Your task to perform on an android device: create a new album in the google photos Image 0: 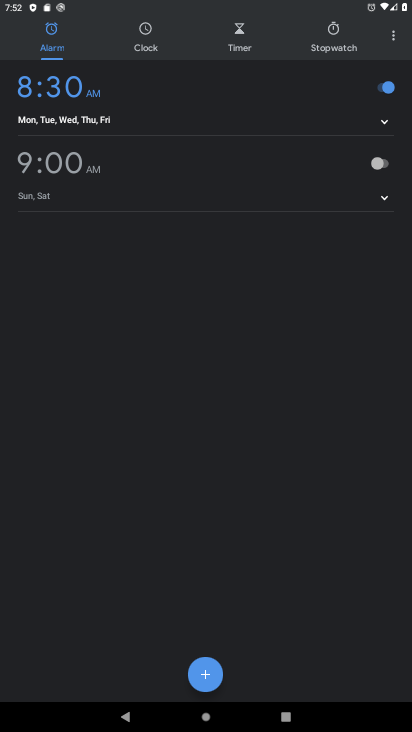
Step 0: press home button
Your task to perform on an android device: create a new album in the google photos Image 1: 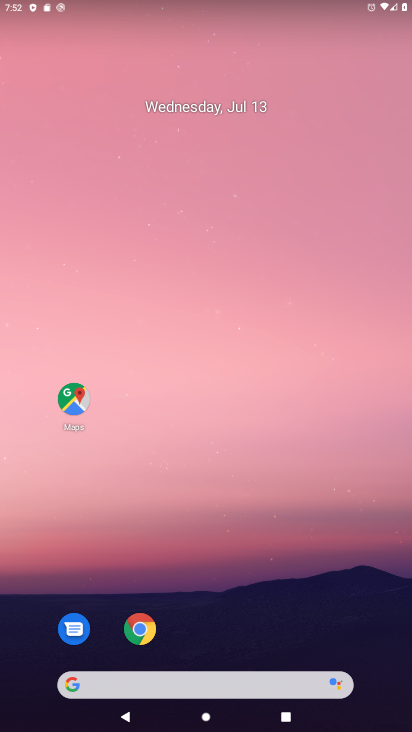
Step 1: drag from (65, 693) to (250, 23)
Your task to perform on an android device: create a new album in the google photos Image 2: 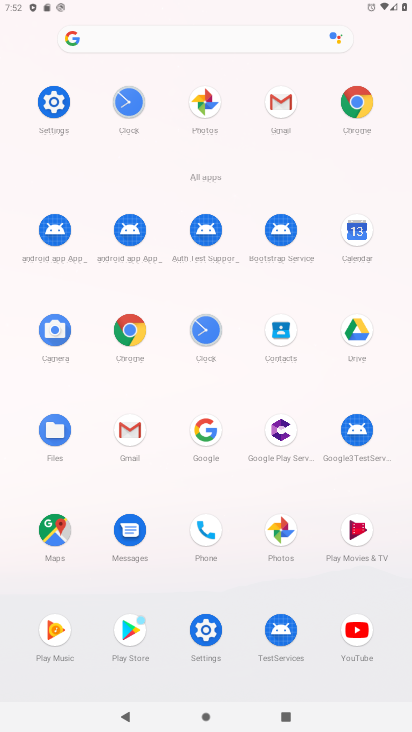
Step 2: click (278, 540)
Your task to perform on an android device: create a new album in the google photos Image 3: 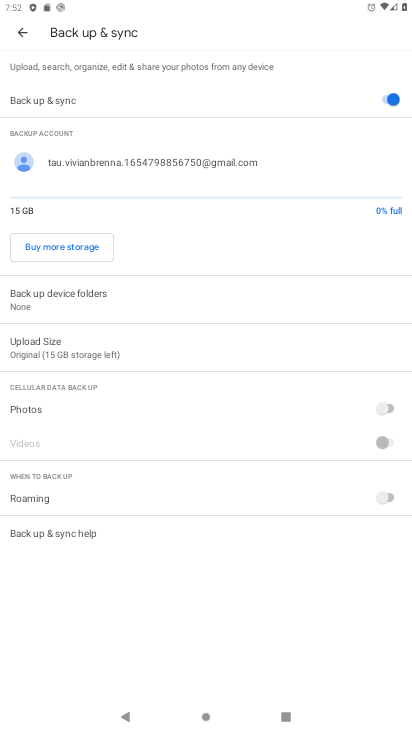
Step 3: click (17, 28)
Your task to perform on an android device: create a new album in the google photos Image 4: 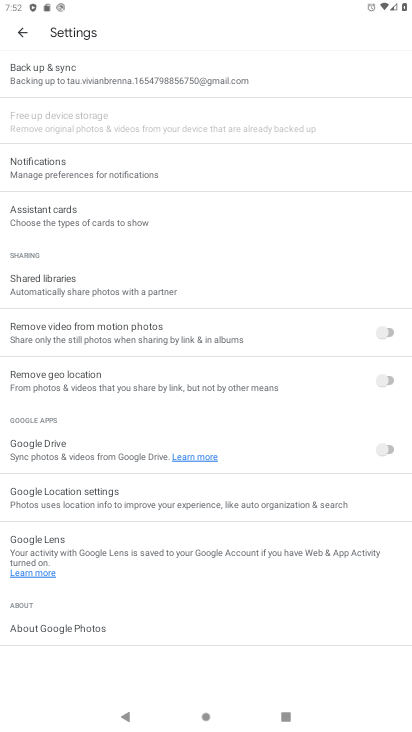
Step 4: click (16, 25)
Your task to perform on an android device: create a new album in the google photos Image 5: 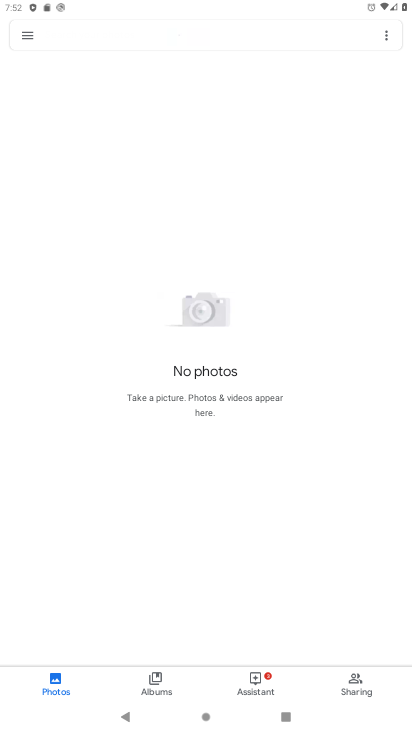
Step 5: click (173, 680)
Your task to perform on an android device: create a new album in the google photos Image 6: 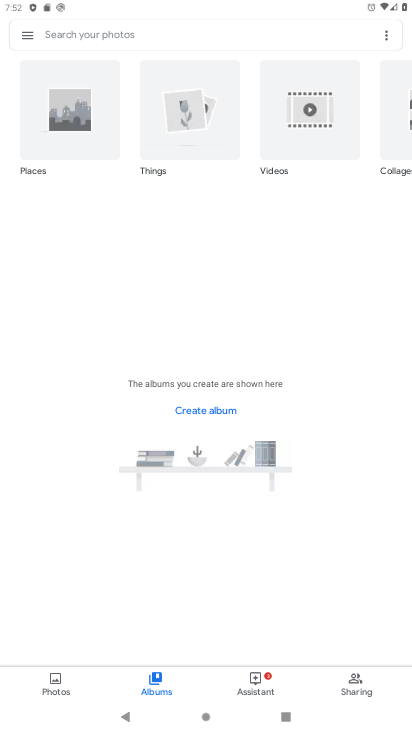
Step 6: click (380, 38)
Your task to perform on an android device: create a new album in the google photos Image 7: 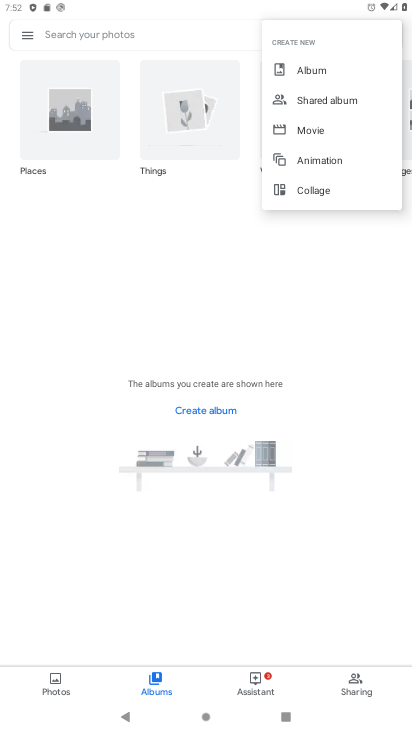
Step 7: click (326, 76)
Your task to perform on an android device: create a new album in the google photos Image 8: 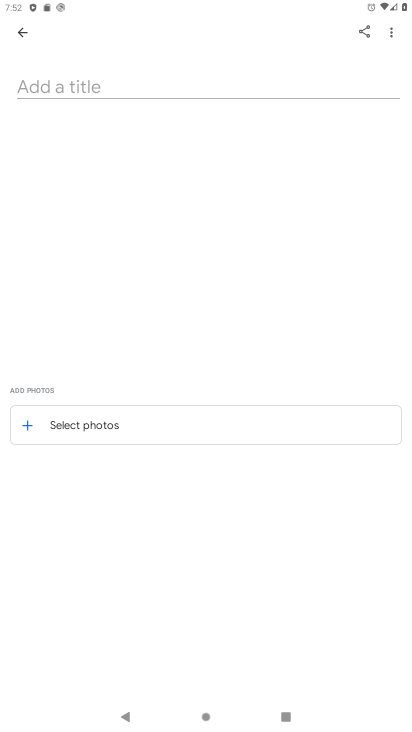
Step 8: click (66, 78)
Your task to perform on an android device: create a new album in the google photos Image 9: 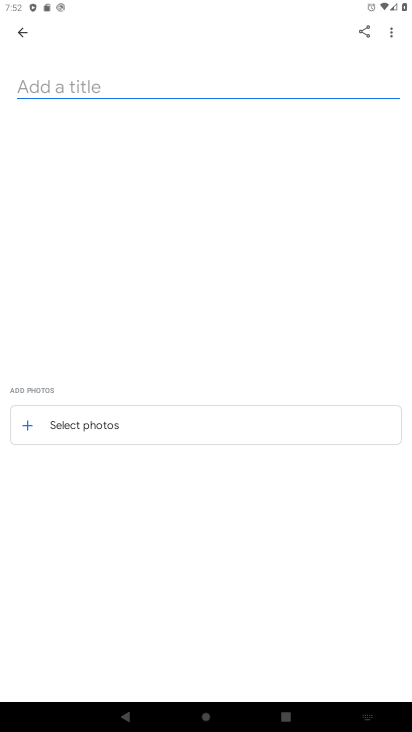
Step 9: type "xyz"
Your task to perform on an android device: create a new album in the google photos Image 10: 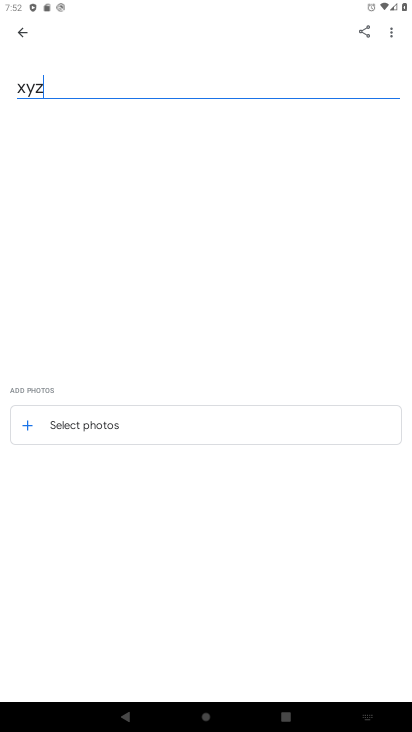
Step 10: type ""
Your task to perform on an android device: create a new album in the google photos Image 11: 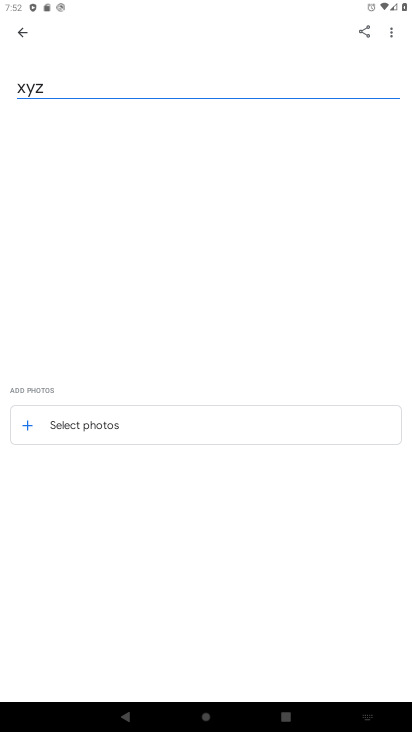
Step 11: click (382, 33)
Your task to perform on an android device: create a new album in the google photos Image 12: 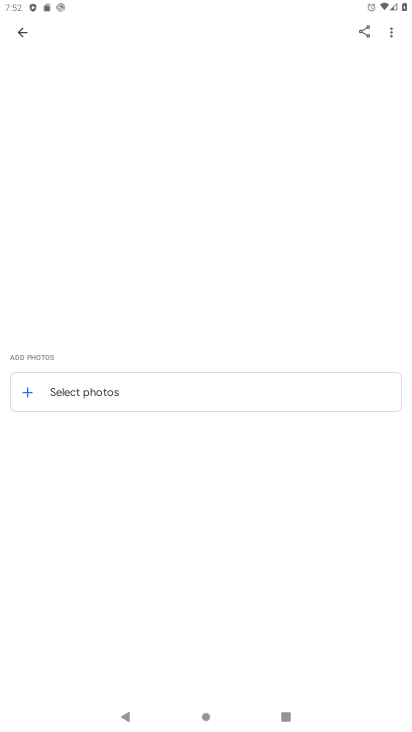
Step 12: click (134, 395)
Your task to perform on an android device: create a new album in the google photos Image 13: 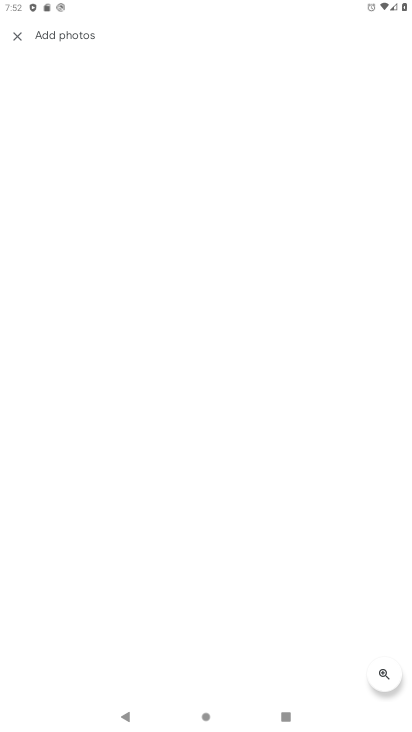
Step 13: task complete